Your task to perform on an android device: refresh tabs in the chrome app Image 0: 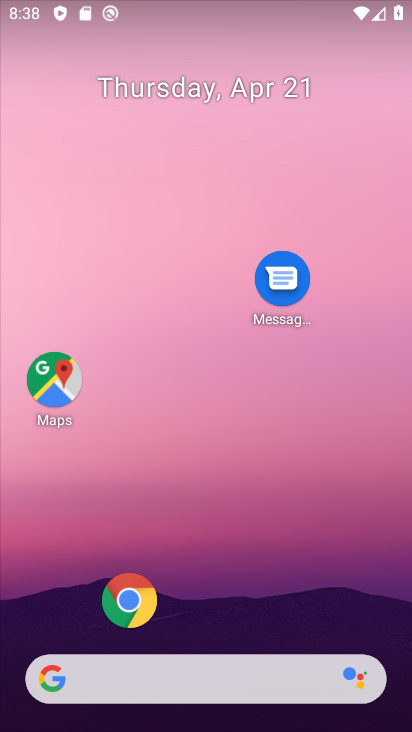
Step 0: click (133, 602)
Your task to perform on an android device: refresh tabs in the chrome app Image 1: 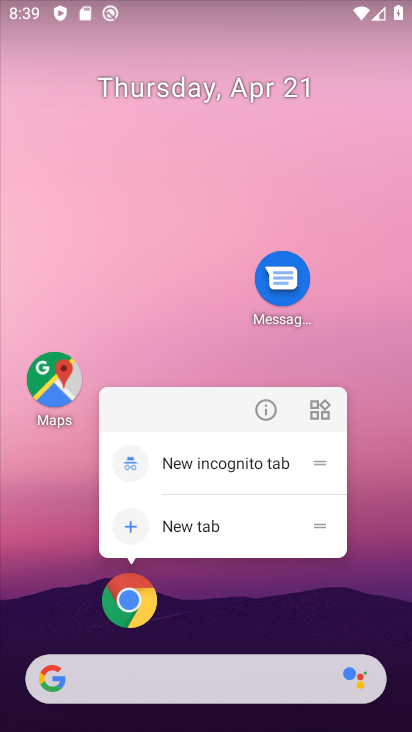
Step 1: click (260, 416)
Your task to perform on an android device: refresh tabs in the chrome app Image 2: 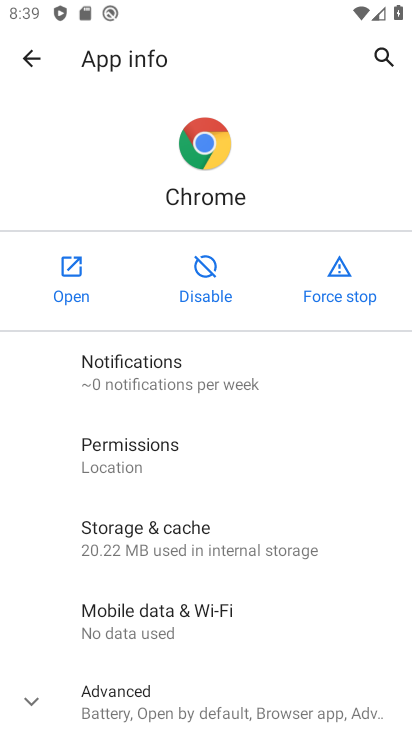
Step 2: click (80, 280)
Your task to perform on an android device: refresh tabs in the chrome app Image 3: 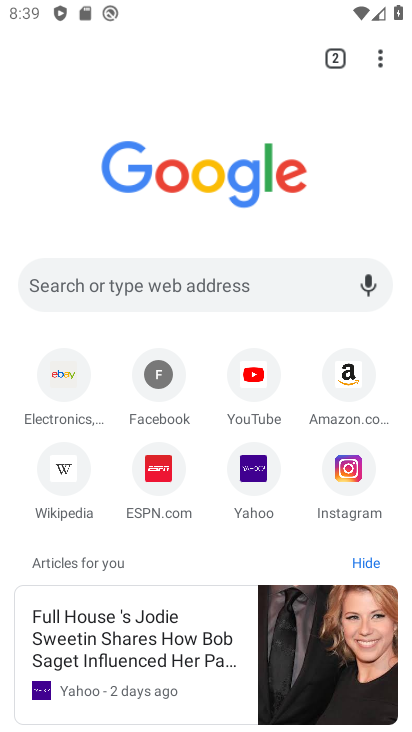
Step 3: click (380, 51)
Your task to perform on an android device: refresh tabs in the chrome app Image 4: 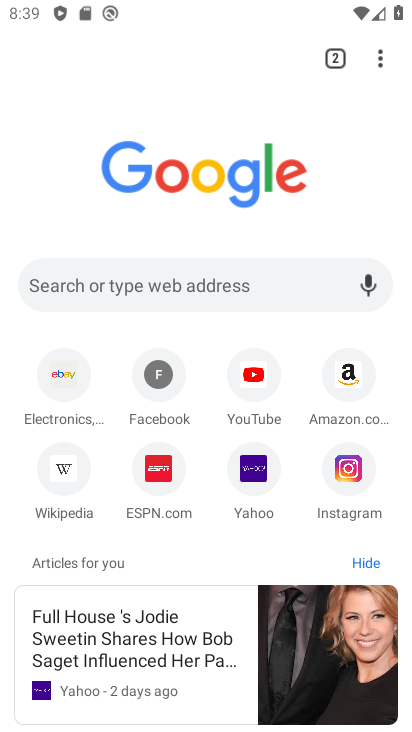
Step 4: click (380, 53)
Your task to perform on an android device: refresh tabs in the chrome app Image 5: 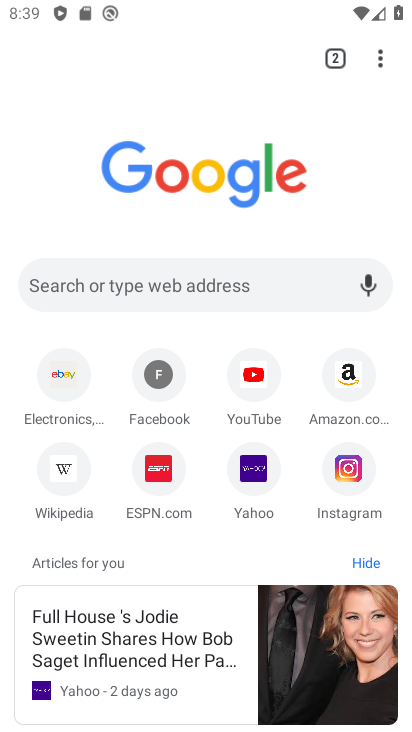
Step 5: click (380, 53)
Your task to perform on an android device: refresh tabs in the chrome app Image 6: 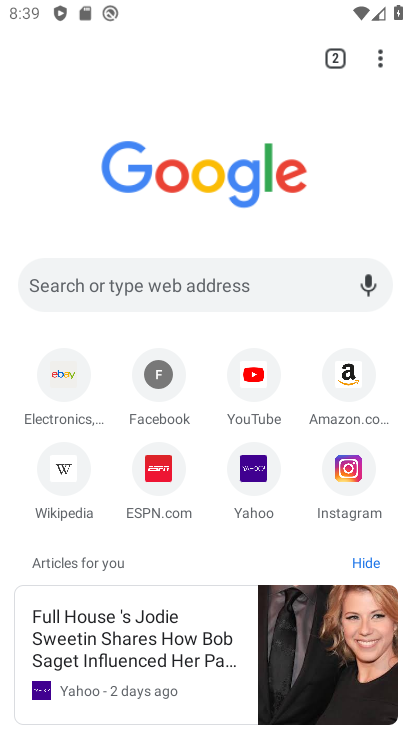
Step 6: click (380, 53)
Your task to perform on an android device: refresh tabs in the chrome app Image 7: 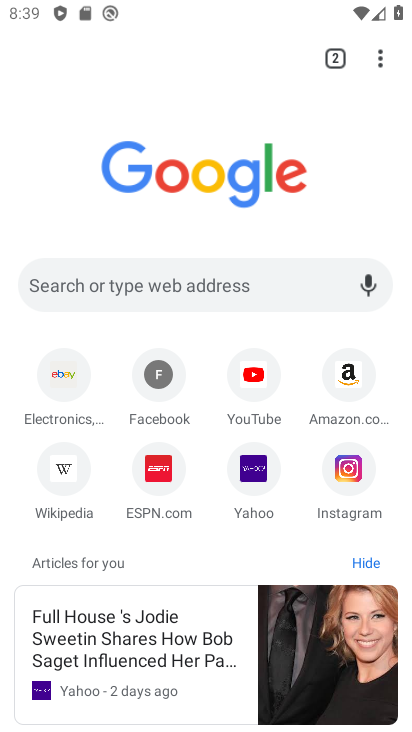
Step 7: click (385, 59)
Your task to perform on an android device: refresh tabs in the chrome app Image 8: 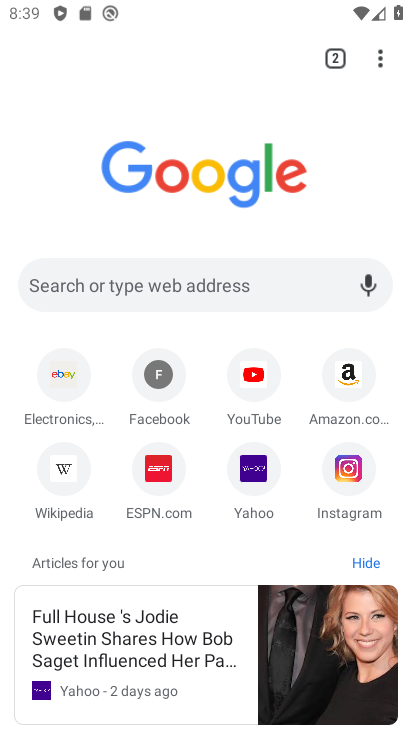
Step 8: click (384, 54)
Your task to perform on an android device: refresh tabs in the chrome app Image 9: 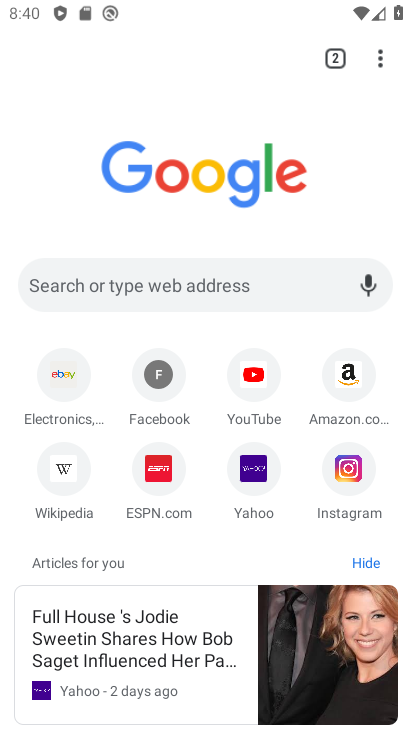
Step 9: click (375, 62)
Your task to perform on an android device: refresh tabs in the chrome app Image 10: 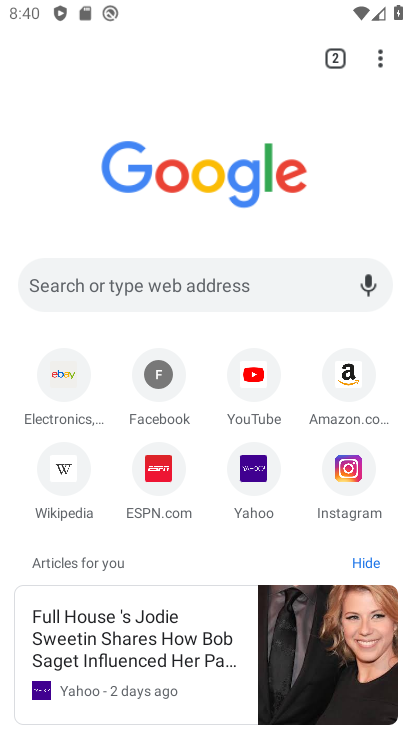
Step 10: click (379, 45)
Your task to perform on an android device: refresh tabs in the chrome app Image 11: 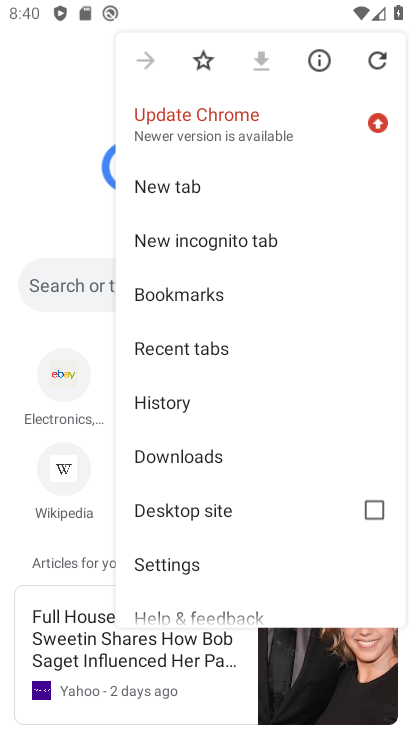
Step 11: click (382, 53)
Your task to perform on an android device: refresh tabs in the chrome app Image 12: 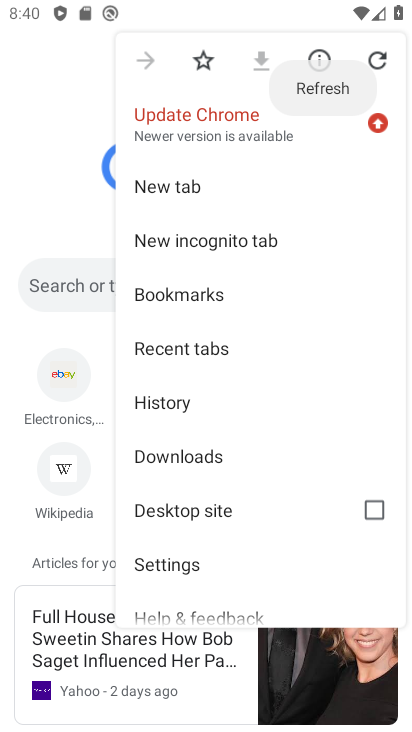
Step 12: task complete